Your task to perform on an android device: Open CNN.com Image 0: 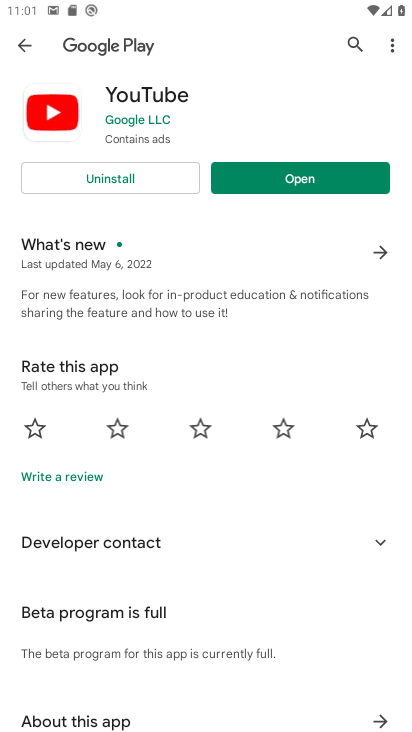
Step 0: press home button
Your task to perform on an android device: Open CNN.com Image 1: 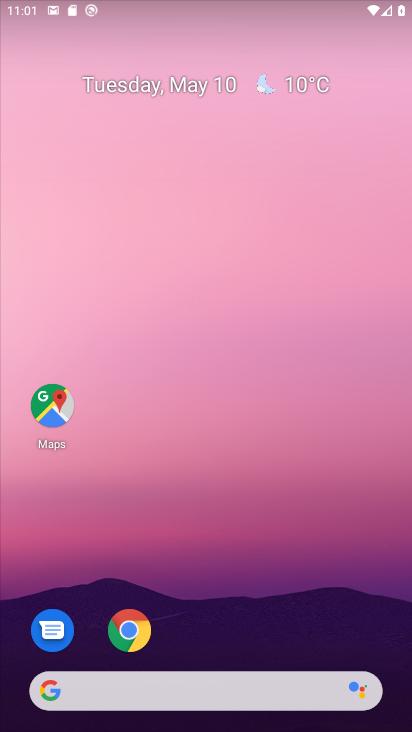
Step 1: click (122, 627)
Your task to perform on an android device: Open CNN.com Image 2: 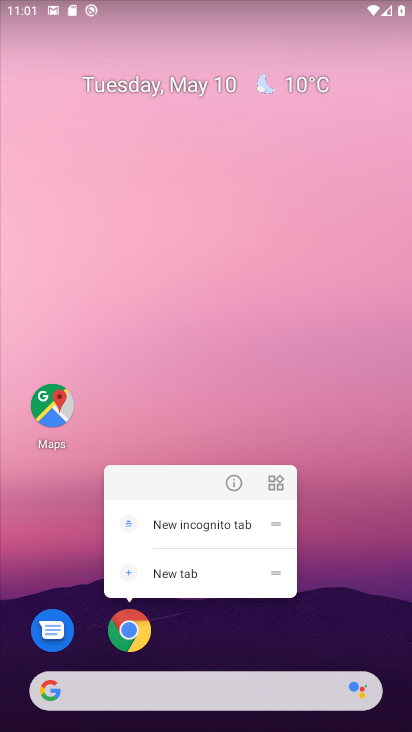
Step 2: click (289, 366)
Your task to perform on an android device: Open CNN.com Image 3: 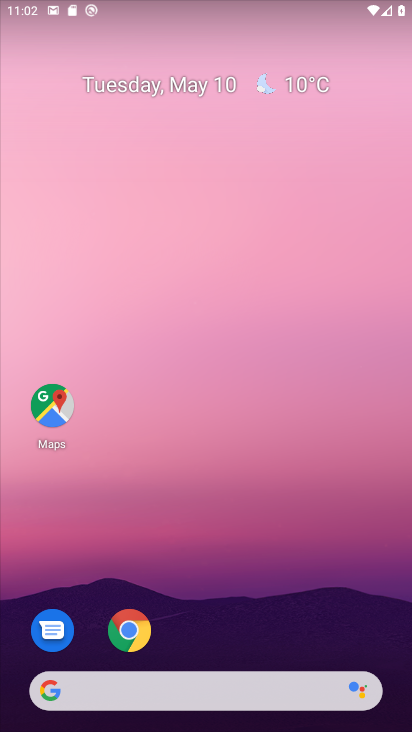
Step 3: click (121, 613)
Your task to perform on an android device: Open CNN.com Image 4: 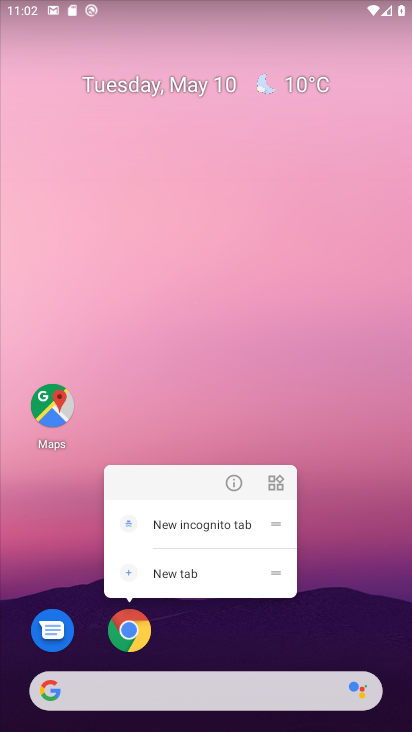
Step 4: click (140, 627)
Your task to perform on an android device: Open CNN.com Image 5: 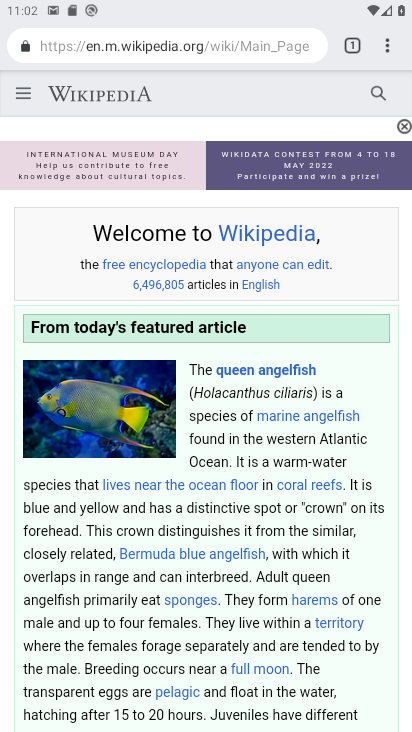
Step 5: click (349, 47)
Your task to perform on an android device: Open CNN.com Image 6: 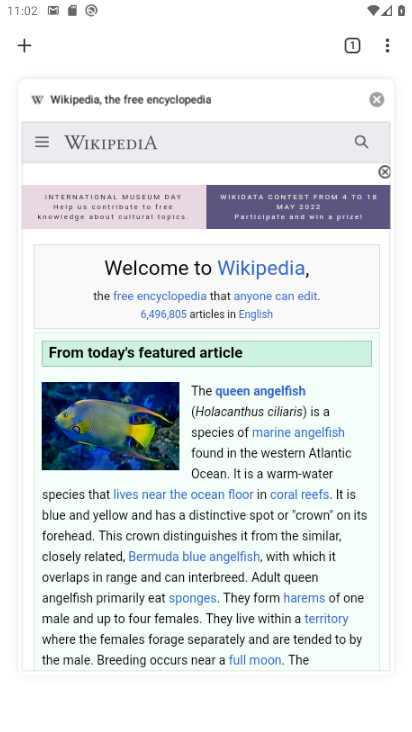
Step 6: click (26, 35)
Your task to perform on an android device: Open CNN.com Image 7: 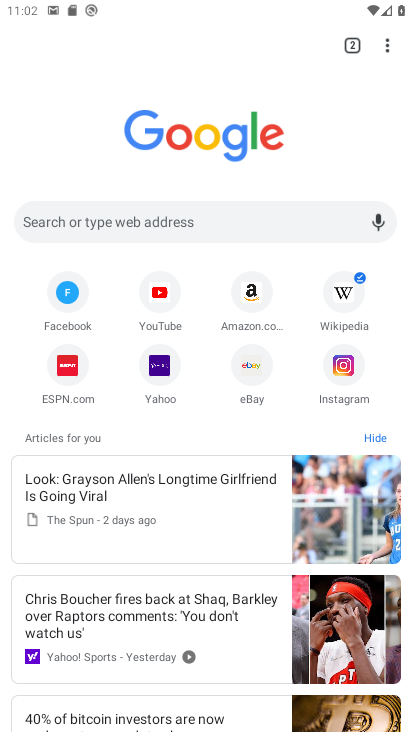
Step 7: click (227, 211)
Your task to perform on an android device: Open CNN.com Image 8: 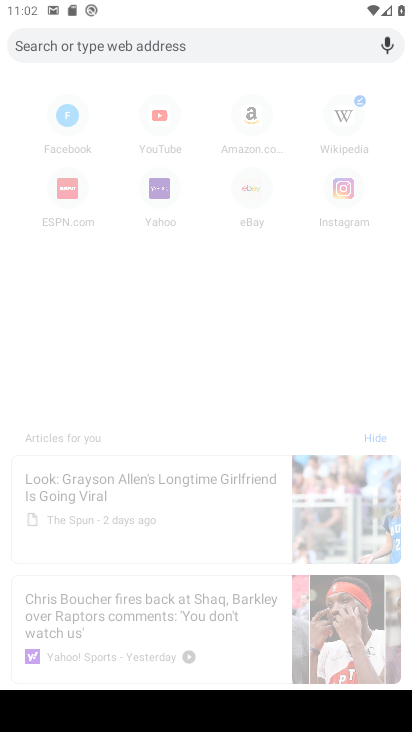
Step 8: type "CNN.com"
Your task to perform on an android device: Open CNN.com Image 9: 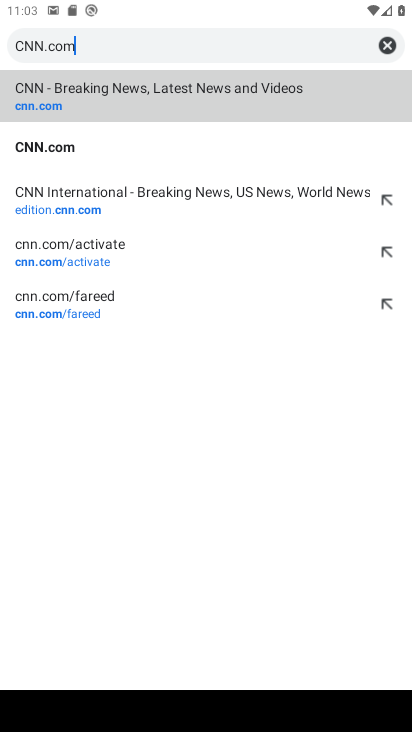
Step 9: click (102, 101)
Your task to perform on an android device: Open CNN.com Image 10: 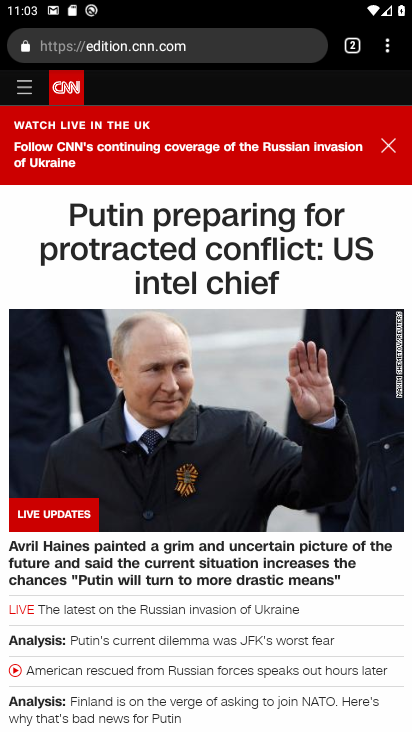
Step 10: task complete